Your task to perform on an android device: toggle pop-ups in chrome Image 0: 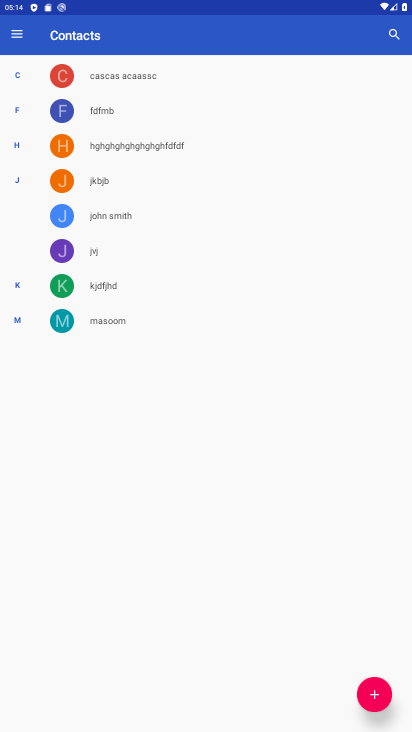
Step 0: press home button
Your task to perform on an android device: toggle pop-ups in chrome Image 1: 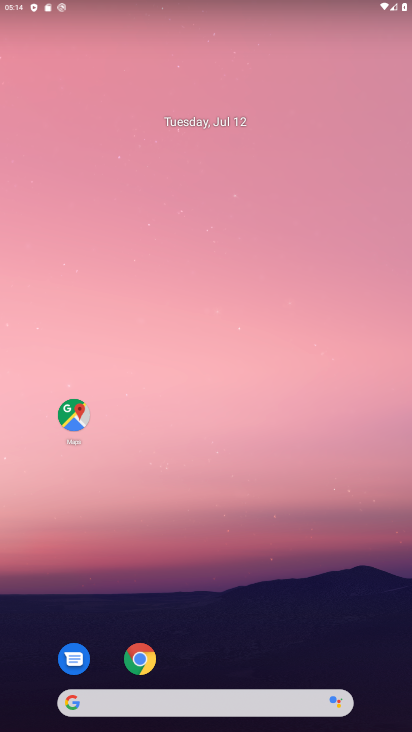
Step 1: click (140, 661)
Your task to perform on an android device: toggle pop-ups in chrome Image 2: 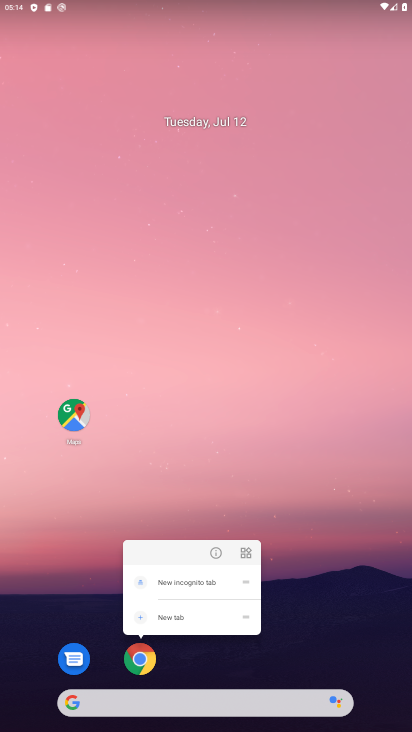
Step 2: click (140, 661)
Your task to perform on an android device: toggle pop-ups in chrome Image 3: 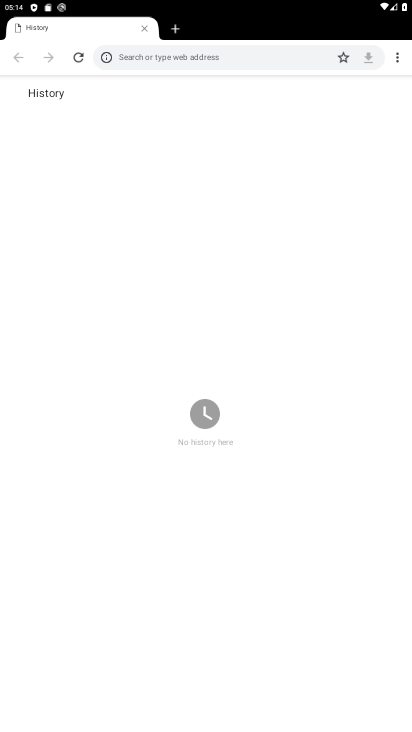
Step 3: click (396, 62)
Your task to perform on an android device: toggle pop-ups in chrome Image 4: 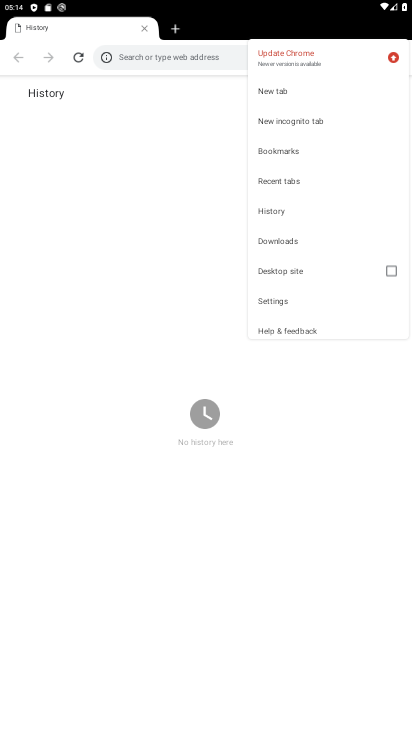
Step 4: click (274, 303)
Your task to perform on an android device: toggle pop-ups in chrome Image 5: 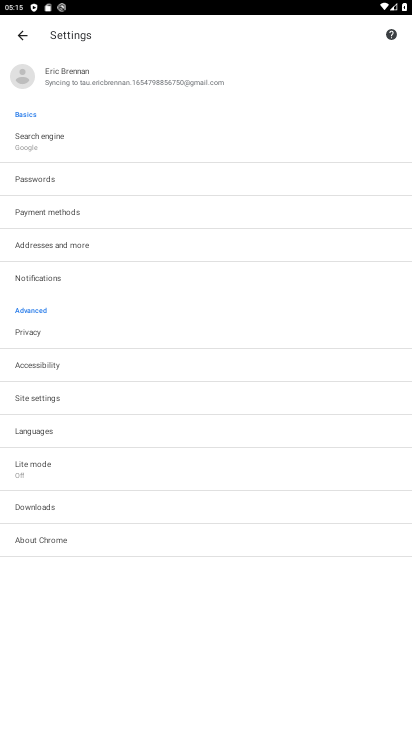
Step 5: click (27, 390)
Your task to perform on an android device: toggle pop-ups in chrome Image 6: 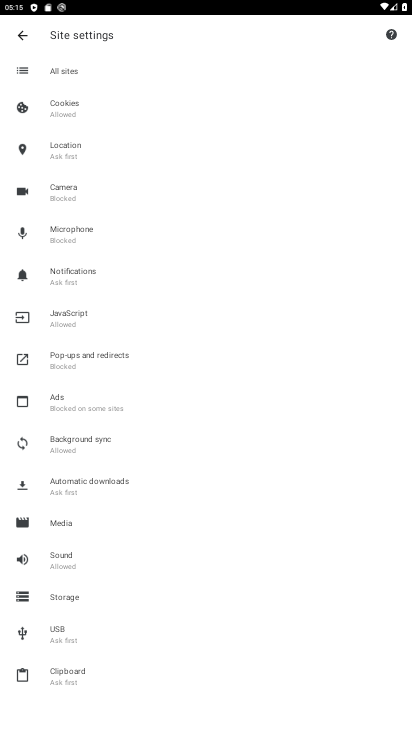
Step 6: click (70, 349)
Your task to perform on an android device: toggle pop-ups in chrome Image 7: 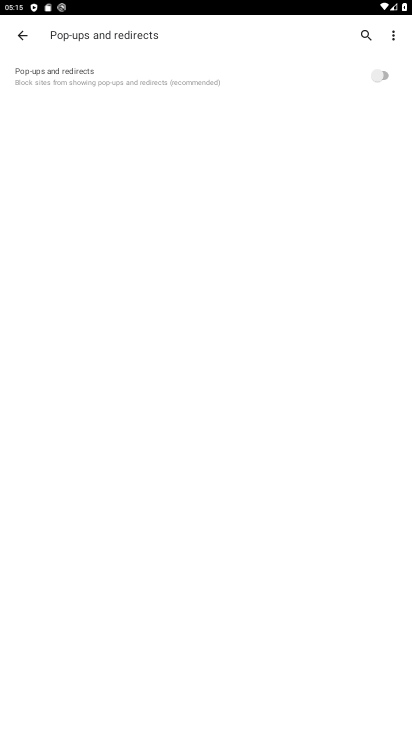
Step 7: click (383, 74)
Your task to perform on an android device: toggle pop-ups in chrome Image 8: 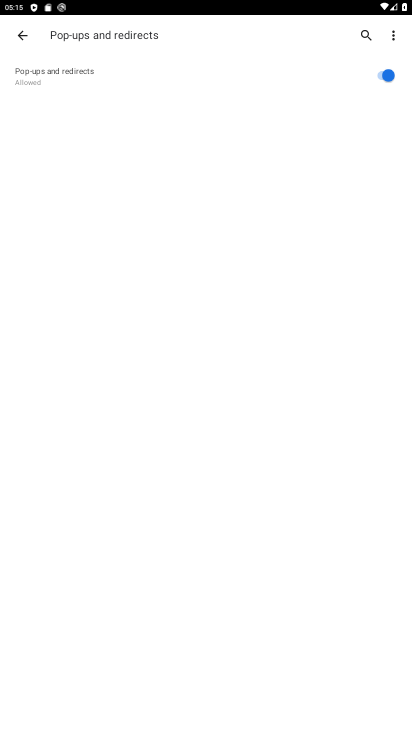
Step 8: task complete